Your task to perform on an android device: Search for vegetarian restaurants on Maps Image 0: 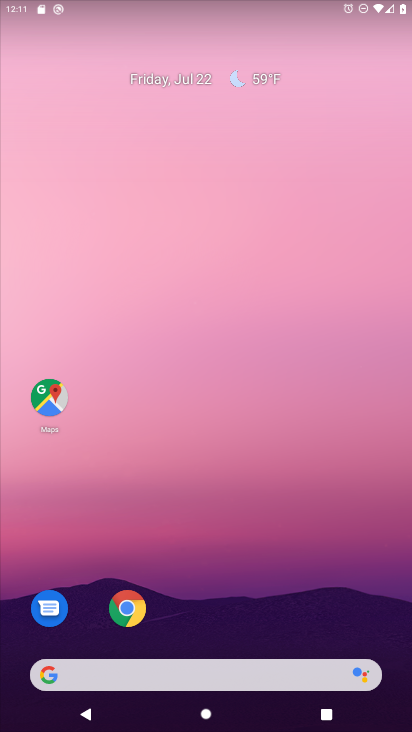
Step 0: drag from (392, 624) to (203, 100)
Your task to perform on an android device: Search for vegetarian restaurants on Maps Image 1: 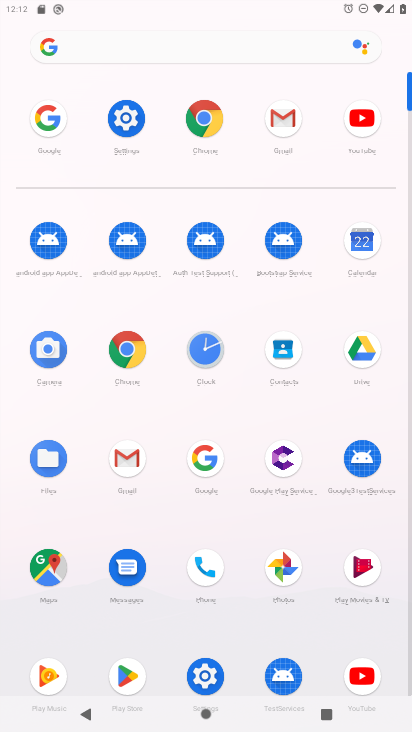
Step 1: click (35, 574)
Your task to perform on an android device: Search for vegetarian restaurants on Maps Image 2: 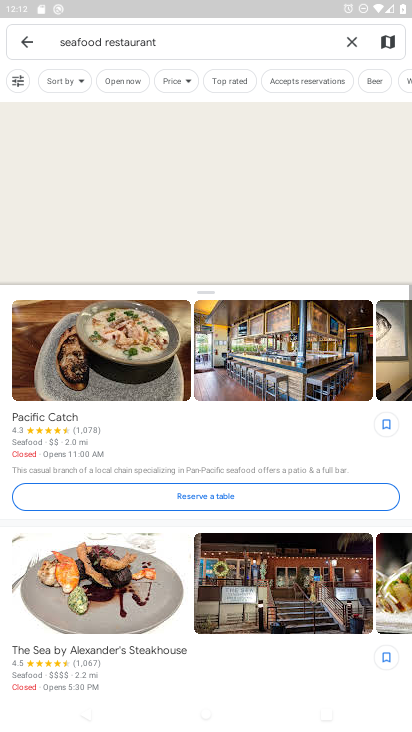
Step 2: click (350, 44)
Your task to perform on an android device: Search for vegetarian restaurants on Maps Image 3: 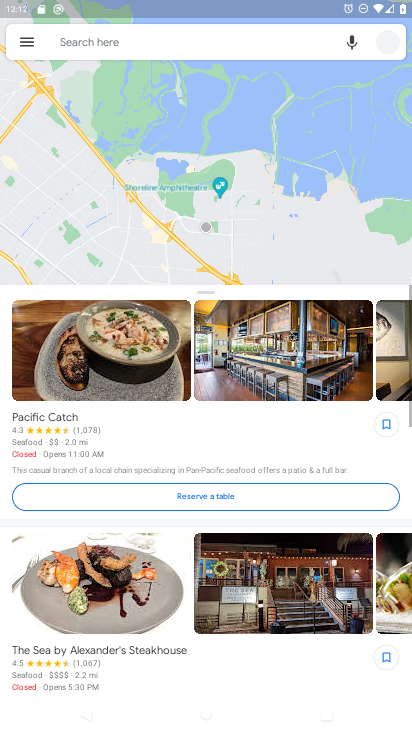
Step 3: click (189, 40)
Your task to perform on an android device: Search for vegetarian restaurants on Maps Image 4: 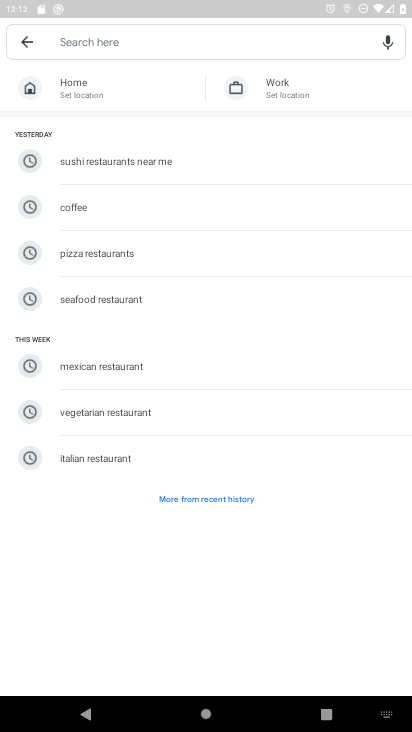
Step 4: click (123, 412)
Your task to perform on an android device: Search for vegetarian restaurants on Maps Image 5: 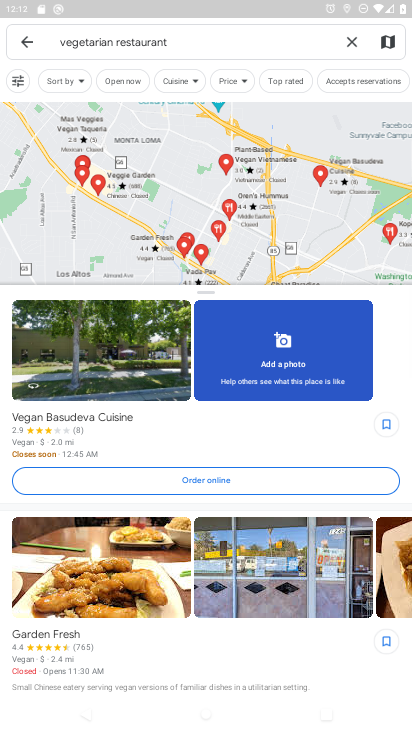
Step 5: task complete